Your task to perform on an android device: Go to CNN.com Image 0: 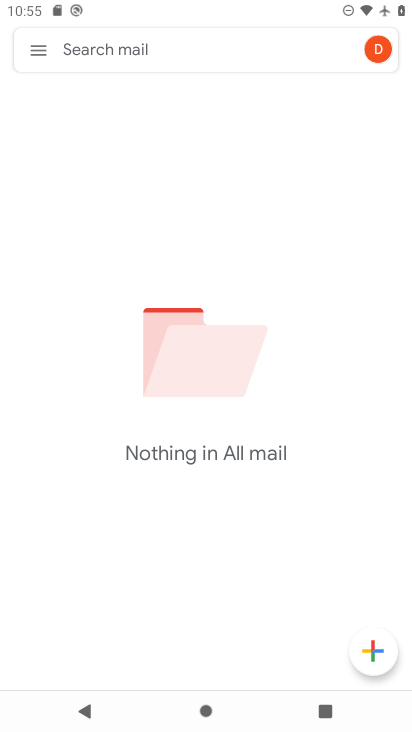
Step 0: press home button
Your task to perform on an android device: Go to CNN.com Image 1: 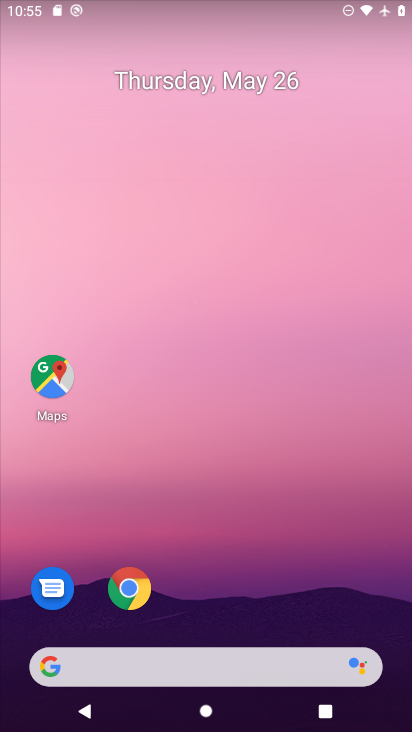
Step 1: click (132, 587)
Your task to perform on an android device: Go to CNN.com Image 2: 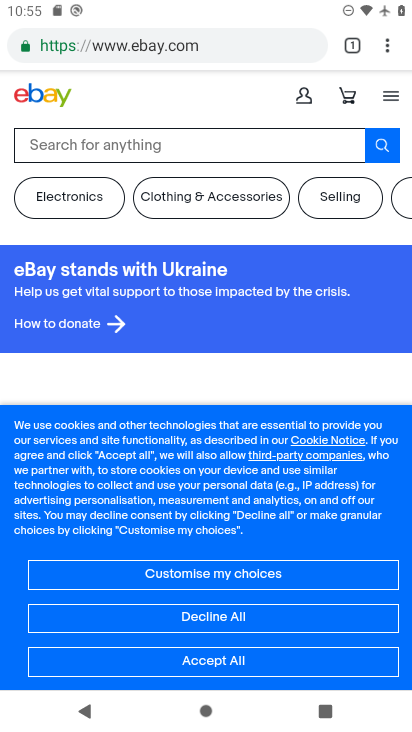
Step 2: click (238, 41)
Your task to perform on an android device: Go to CNN.com Image 3: 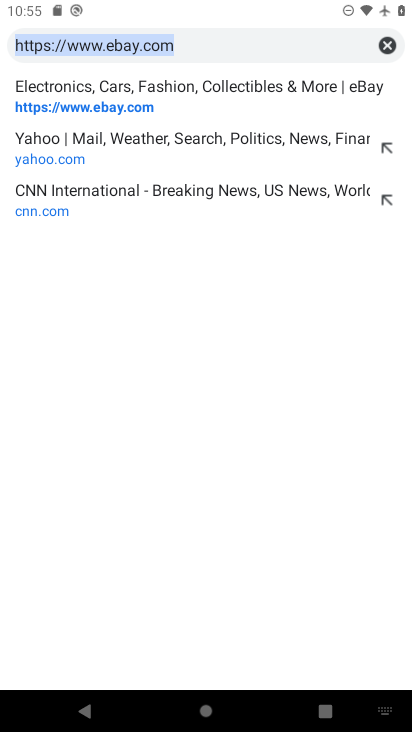
Step 3: click (384, 40)
Your task to perform on an android device: Go to CNN.com Image 4: 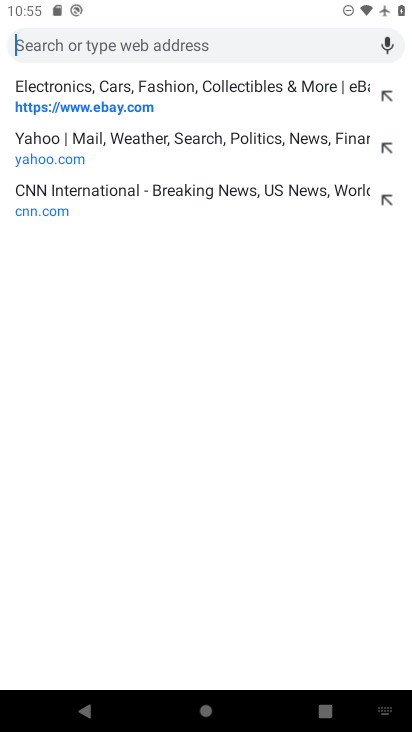
Step 4: type "cnn.com"
Your task to perform on an android device: Go to CNN.com Image 5: 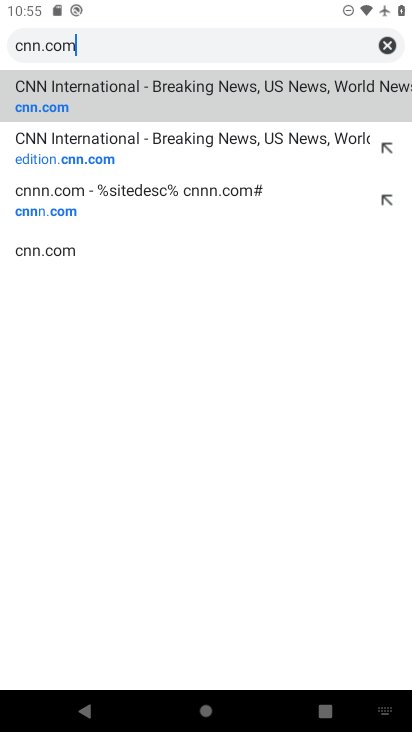
Step 5: click (134, 101)
Your task to perform on an android device: Go to CNN.com Image 6: 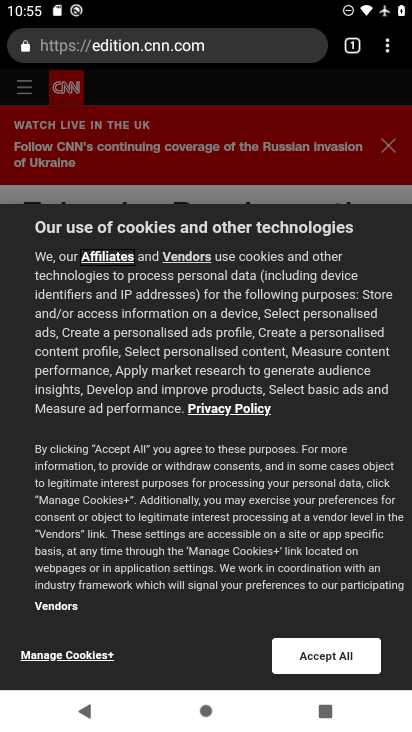
Step 6: click (325, 654)
Your task to perform on an android device: Go to CNN.com Image 7: 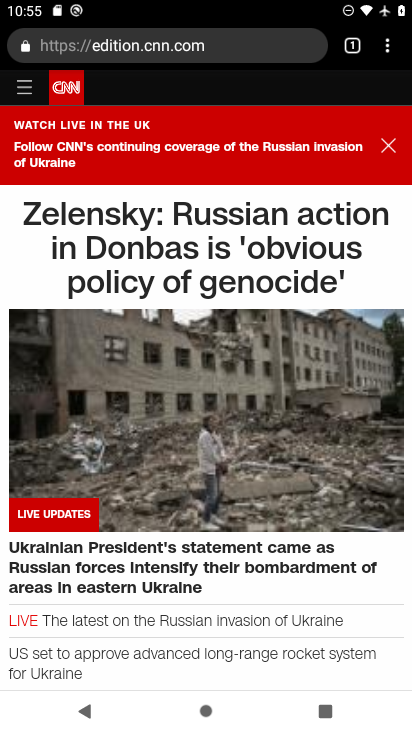
Step 7: task complete